Your task to perform on an android device: add a contact in the contacts app Image 0: 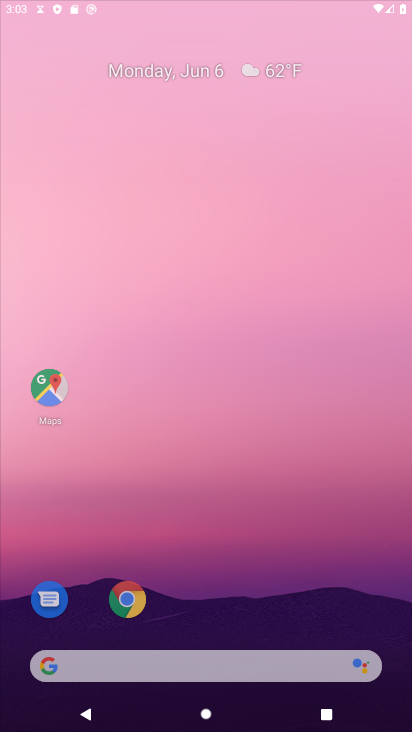
Step 0: drag from (251, 467) to (251, 73)
Your task to perform on an android device: add a contact in the contacts app Image 1: 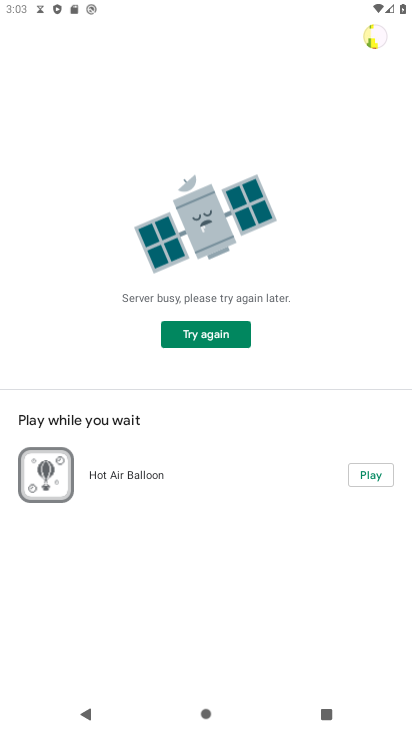
Step 1: press home button
Your task to perform on an android device: add a contact in the contacts app Image 2: 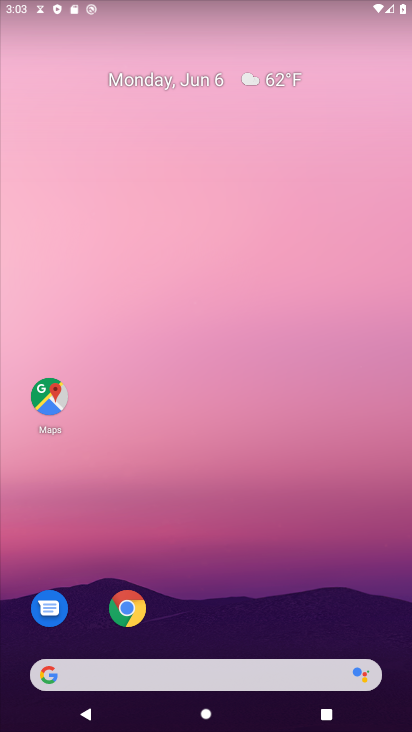
Step 2: drag from (281, 611) to (340, 17)
Your task to perform on an android device: add a contact in the contacts app Image 3: 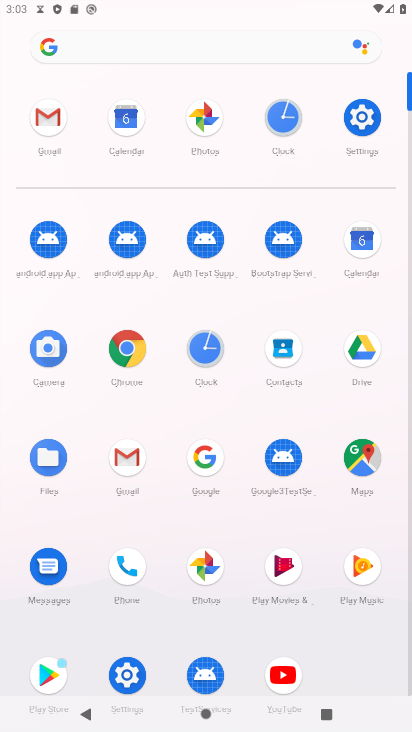
Step 3: click (278, 353)
Your task to perform on an android device: add a contact in the contacts app Image 4: 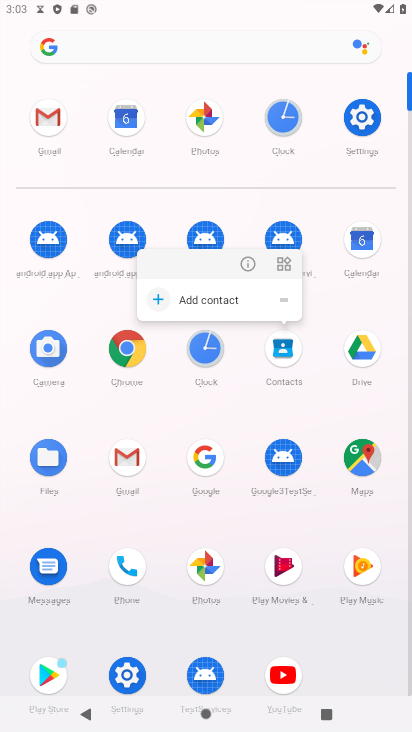
Step 4: click (292, 349)
Your task to perform on an android device: add a contact in the contacts app Image 5: 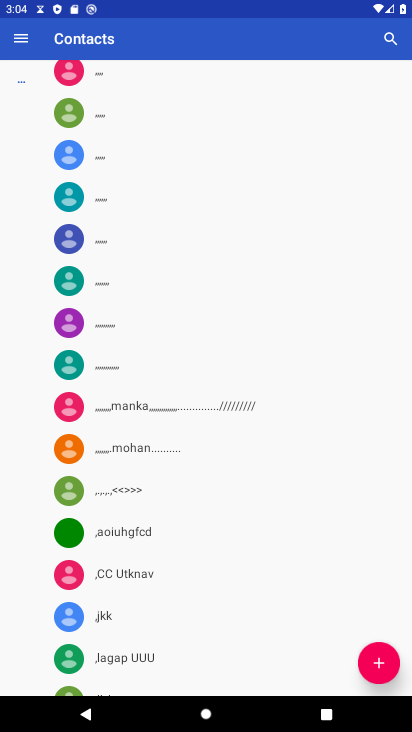
Step 5: click (379, 660)
Your task to perform on an android device: add a contact in the contacts app Image 6: 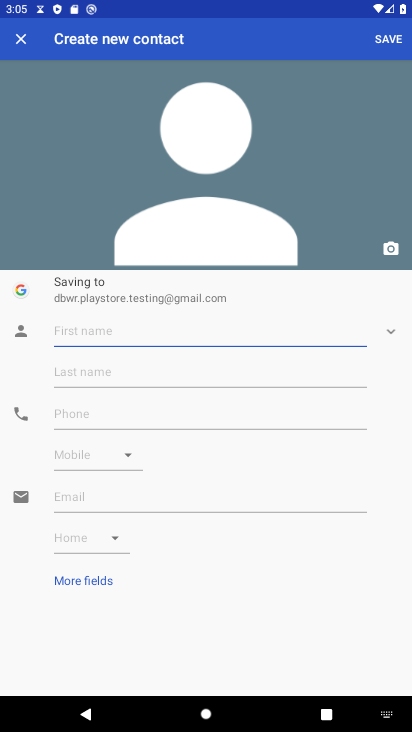
Step 6: type "ddddd"
Your task to perform on an android device: add a contact in the contacts app Image 7: 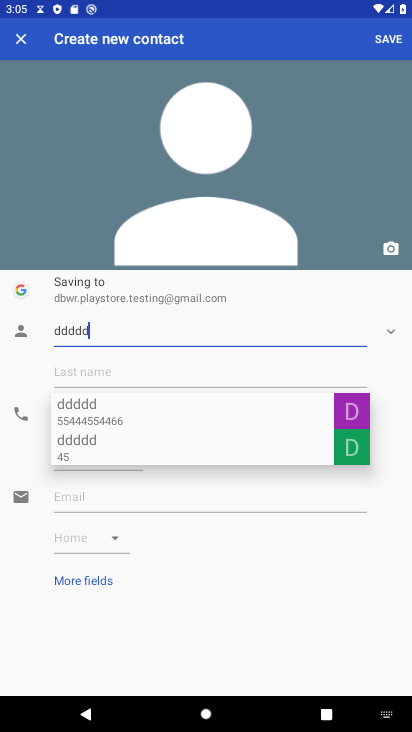
Step 7: click (97, 418)
Your task to perform on an android device: add a contact in the contacts app Image 8: 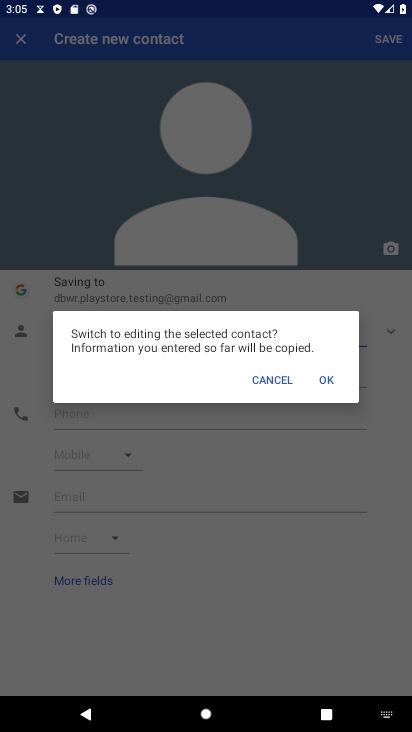
Step 8: click (270, 388)
Your task to perform on an android device: add a contact in the contacts app Image 9: 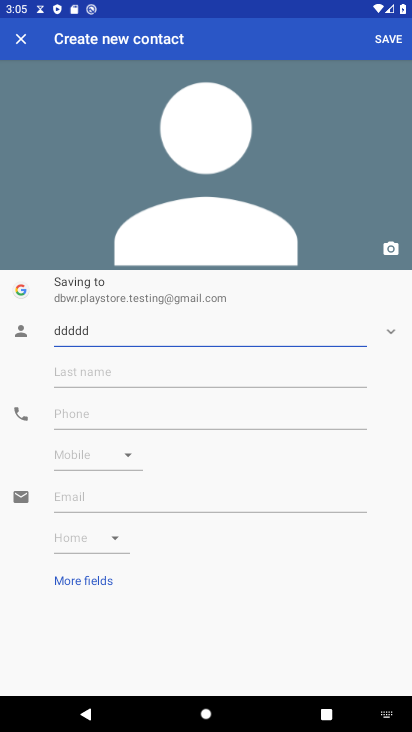
Step 9: click (73, 417)
Your task to perform on an android device: add a contact in the contacts app Image 10: 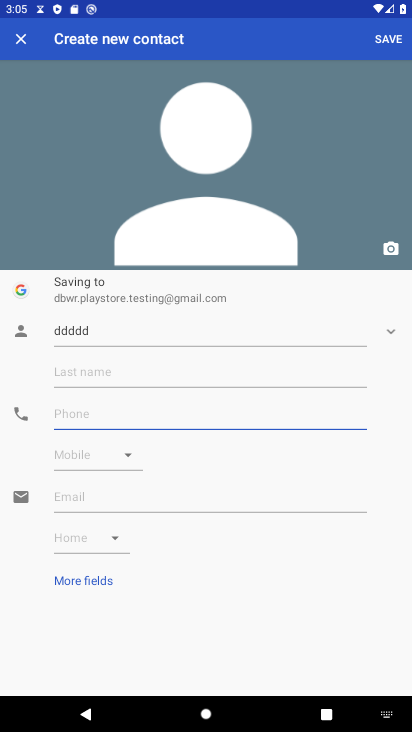
Step 10: type "9876542145"
Your task to perform on an android device: add a contact in the contacts app Image 11: 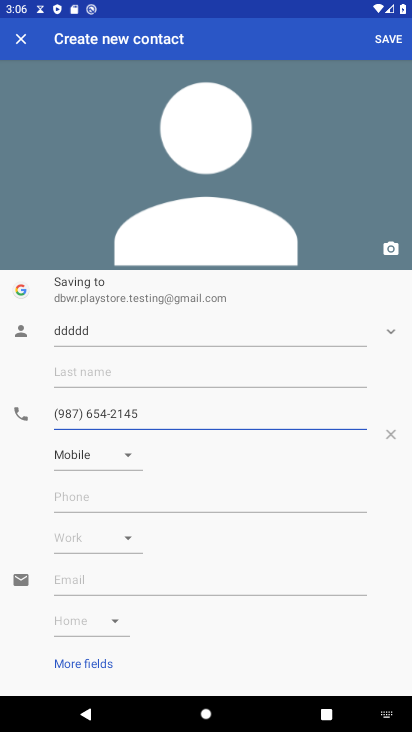
Step 11: click (374, 39)
Your task to perform on an android device: add a contact in the contacts app Image 12: 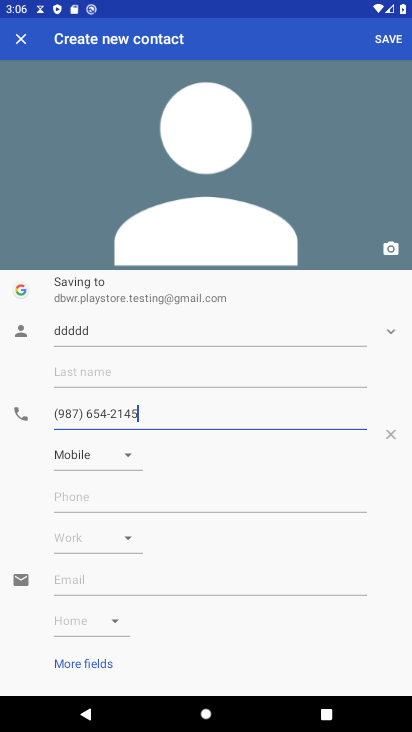
Step 12: task complete